Your task to perform on an android device: Show me popular games on the Play Store Image 0: 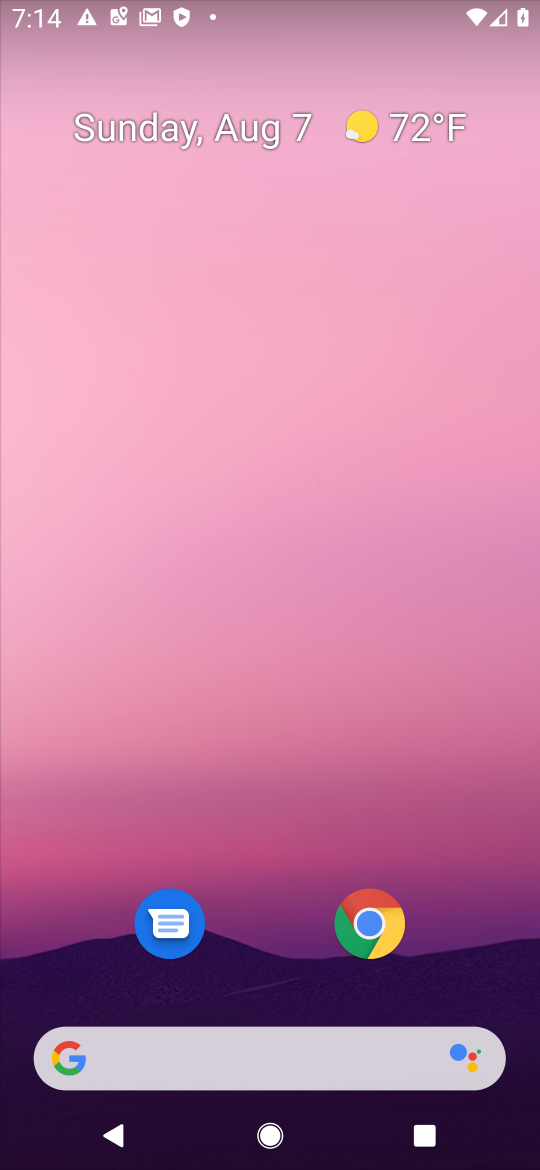
Step 0: drag from (501, 966) to (326, 69)
Your task to perform on an android device: Show me popular games on the Play Store Image 1: 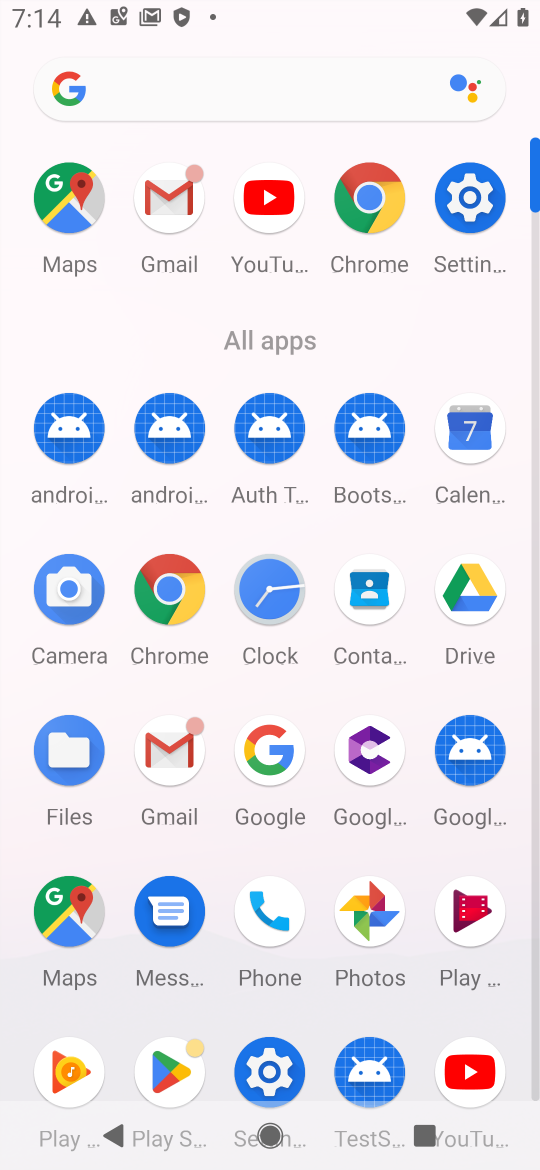
Step 1: click (163, 1064)
Your task to perform on an android device: Show me popular games on the Play Store Image 2: 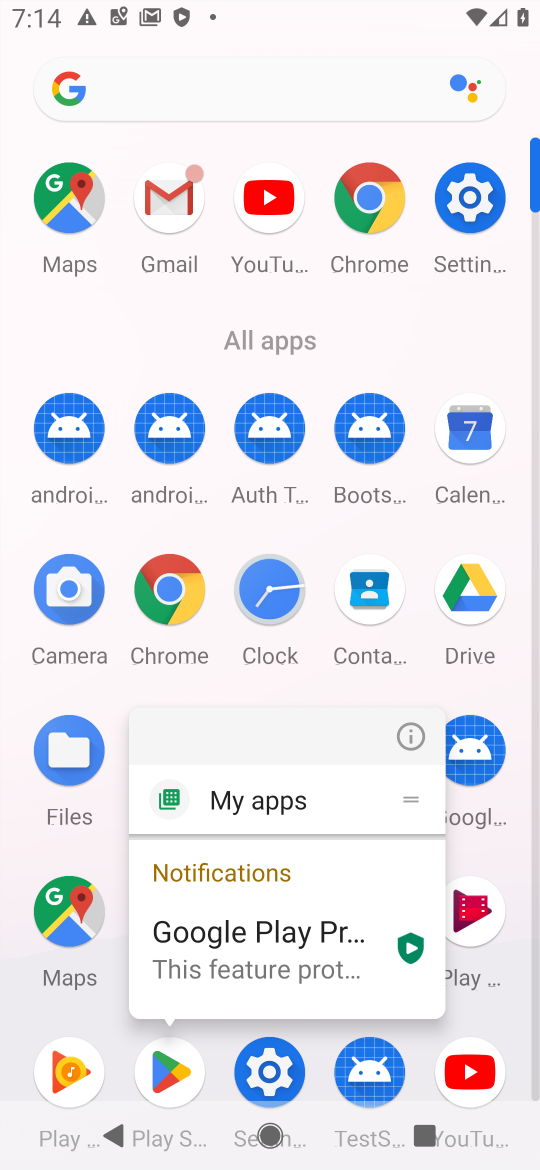
Step 2: click (163, 1064)
Your task to perform on an android device: Show me popular games on the Play Store Image 3: 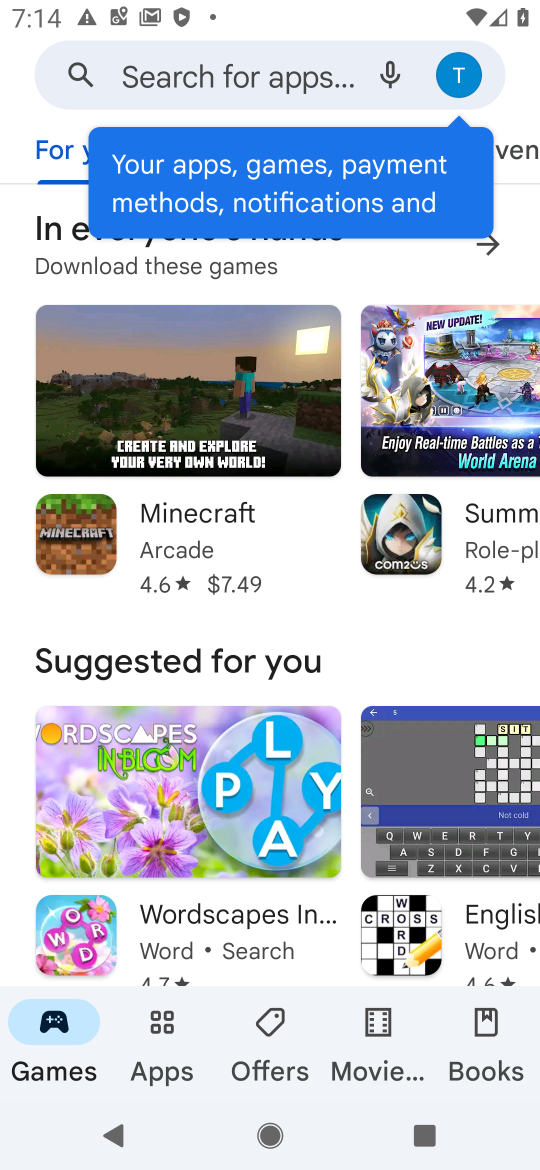
Step 3: click (249, 96)
Your task to perform on an android device: Show me popular games on the Play Store Image 4: 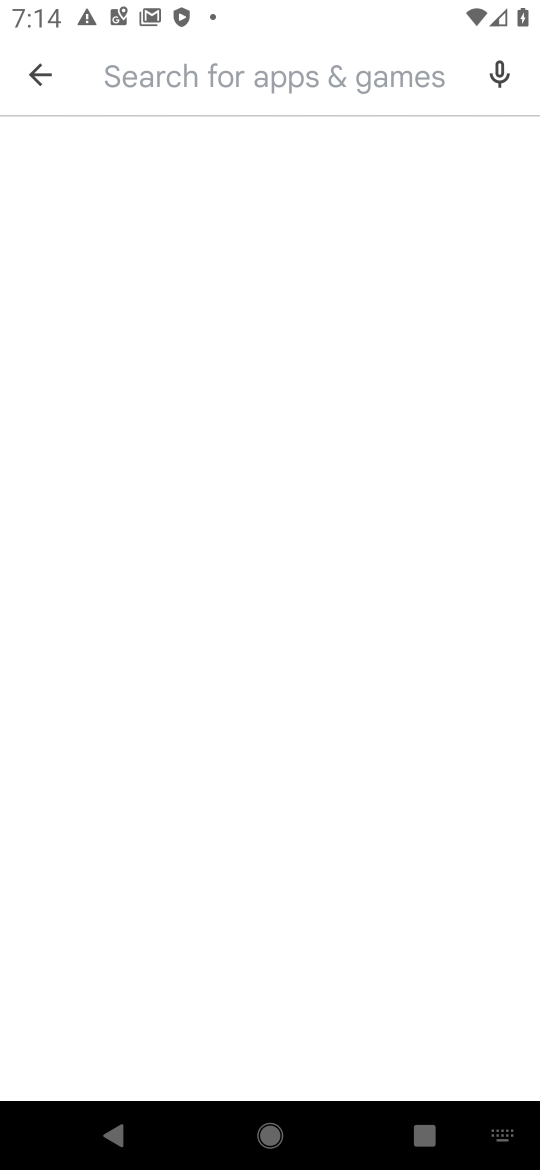
Step 4: type "popular games"
Your task to perform on an android device: Show me popular games on the Play Store Image 5: 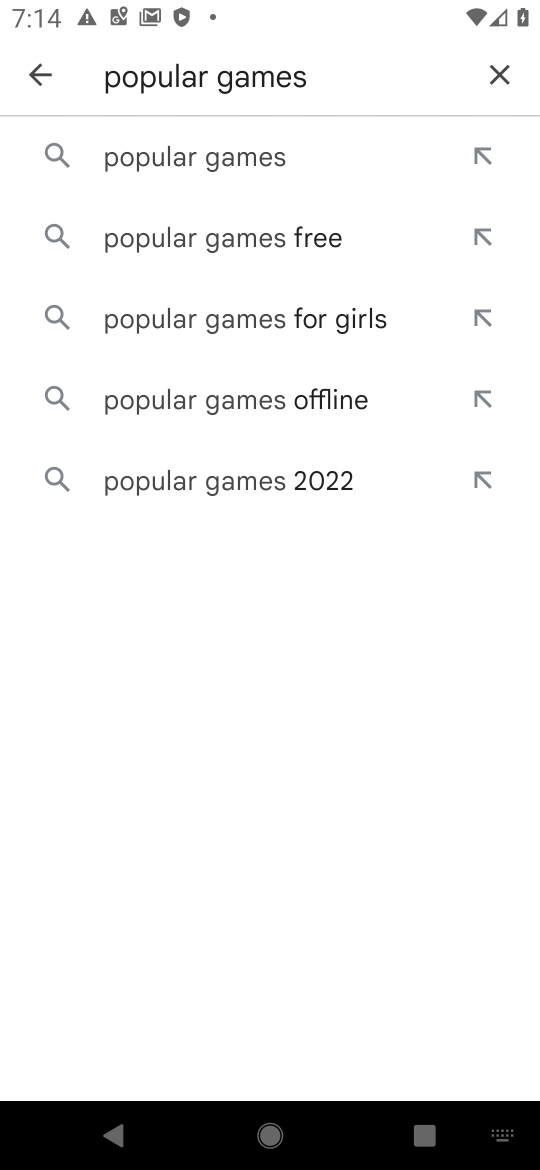
Step 5: click (187, 170)
Your task to perform on an android device: Show me popular games on the Play Store Image 6: 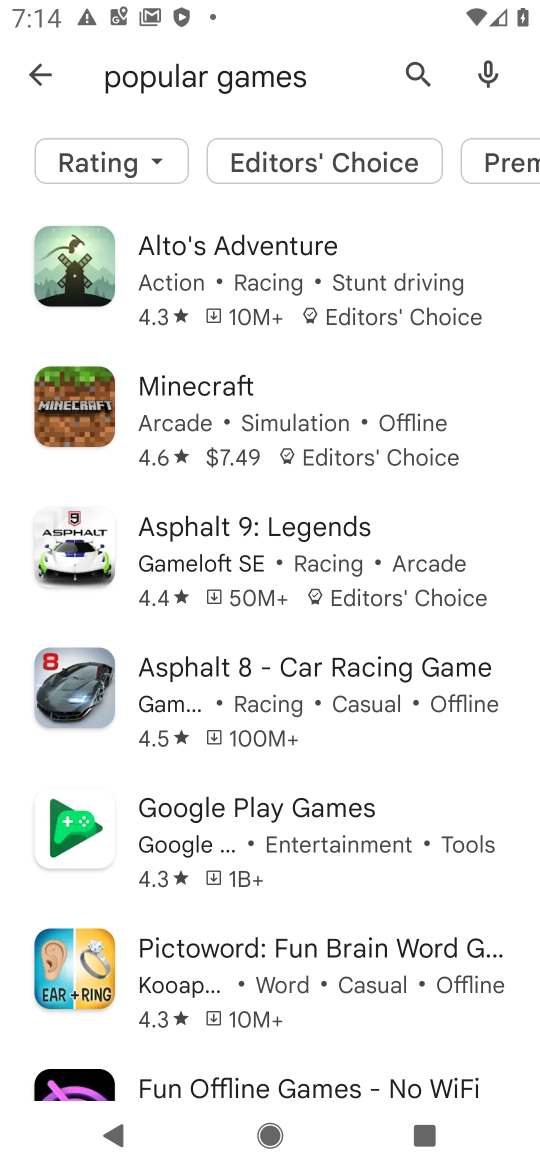
Step 6: task complete